Your task to perform on an android device: turn off improve location accuracy Image 0: 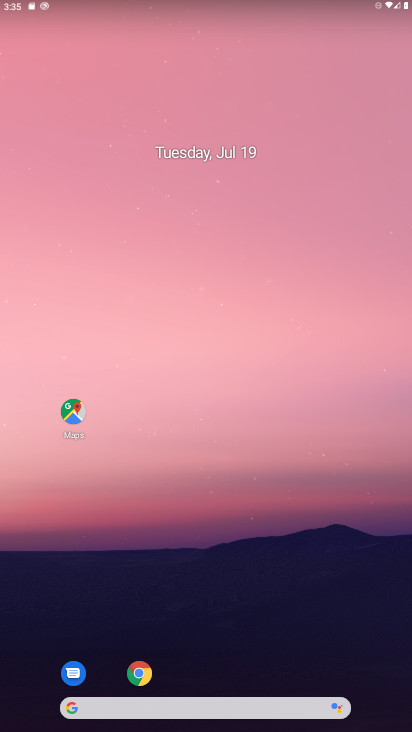
Step 0: drag from (240, 644) to (250, 49)
Your task to perform on an android device: turn off improve location accuracy Image 1: 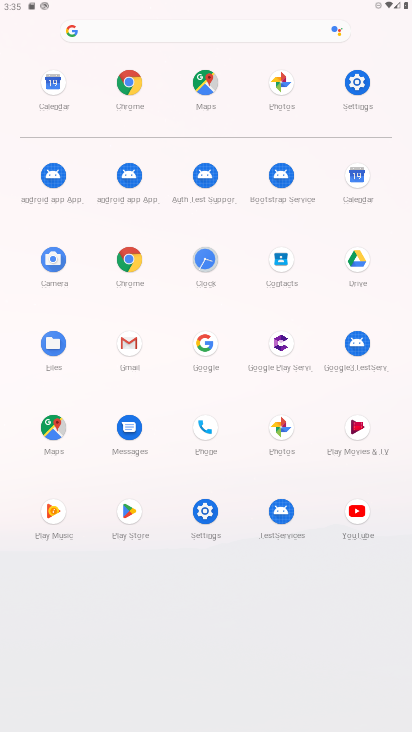
Step 1: click (201, 524)
Your task to perform on an android device: turn off improve location accuracy Image 2: 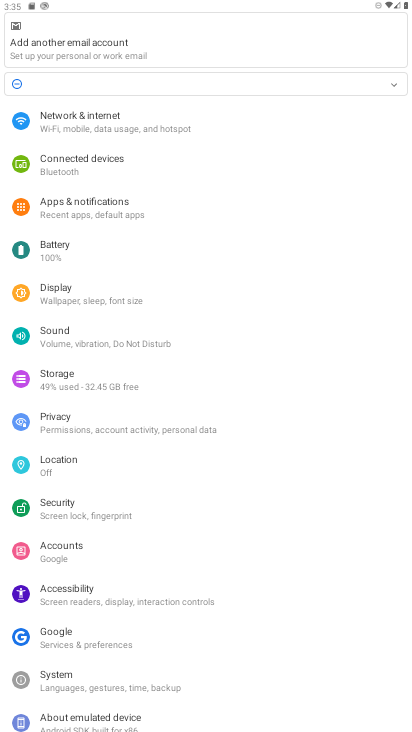
Step 2: click (57, 464)
Your task to perform on an android device: turn off improve location accuracy Image 3: 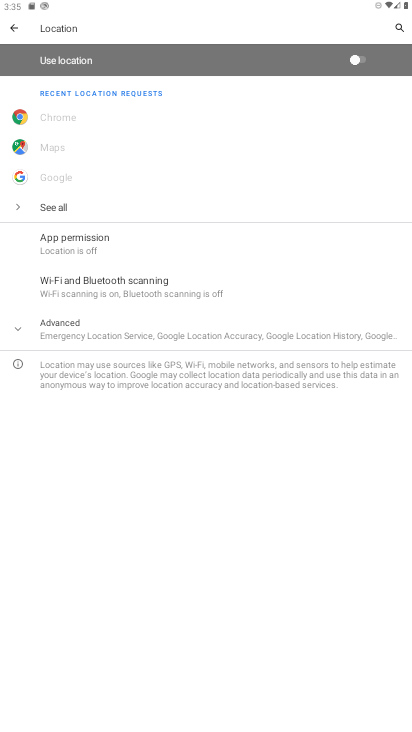
Step 3: click (77, 336)
Your task to perform on an android device: turn off improve location accuracy Image 4: 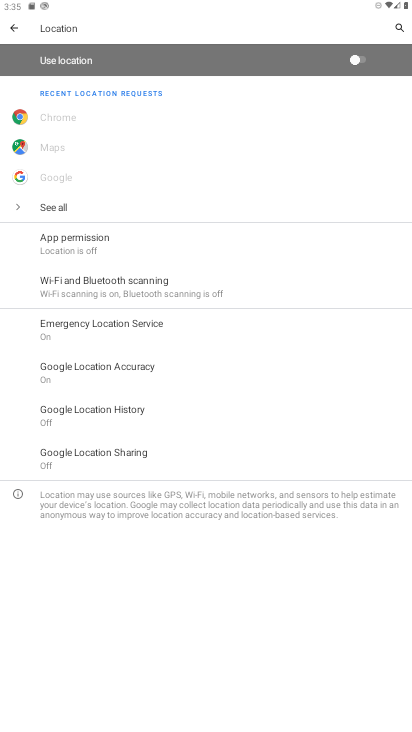
Step 4: click (130, 373)
Your task to perform on an android device: turn off improve location accuracy Image 5: 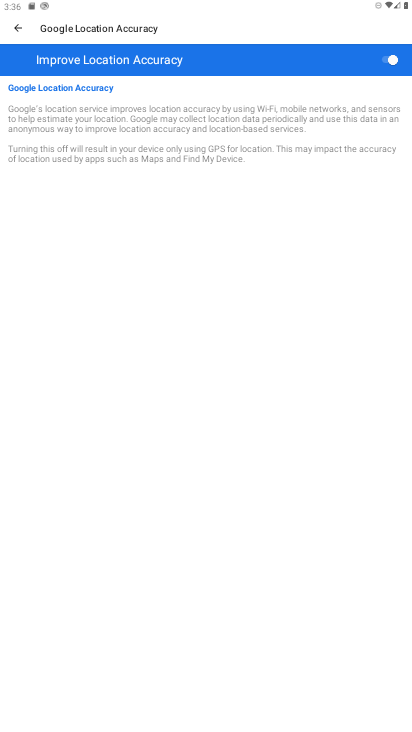
Step 5: click (363, 54)
Your task to perform on an android device: turn off improve location accuracy Image 6: 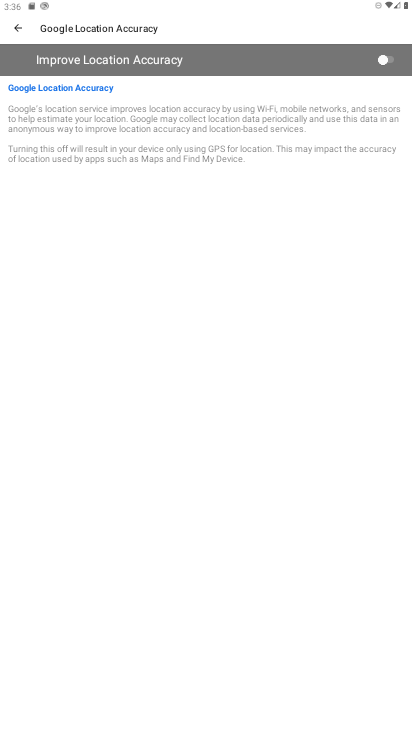
Step 6: task complete